Your task to perform on an android device: search for starred emails in the gmail app Image 0: 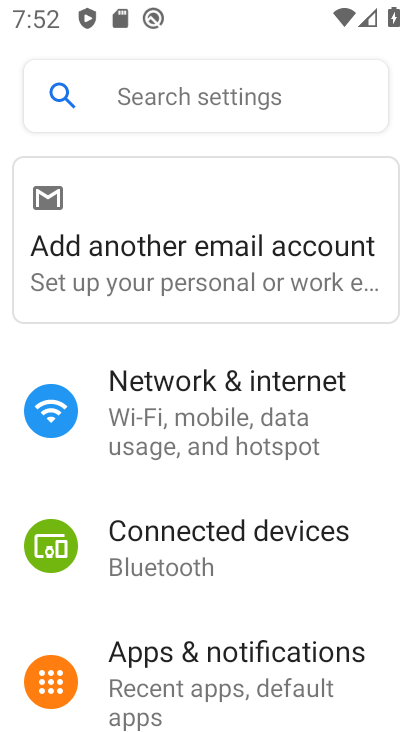
Step 0: press home button
Your task to perform on an android device: search for starred emails in the gmail app Image 1: 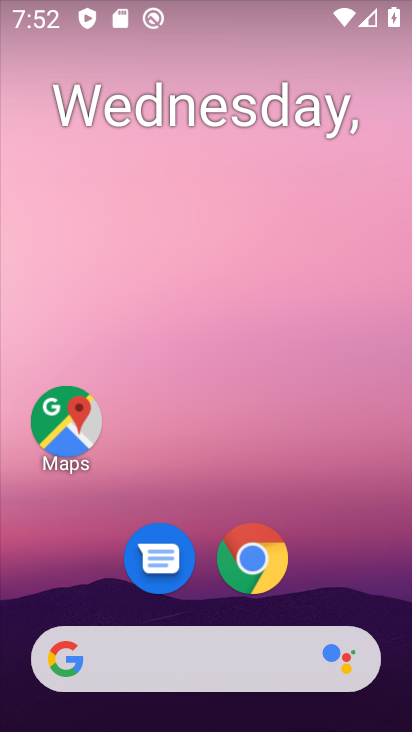
Step 1: drag from (273, 682) to (273, 122)
Your task to perform on an android device: search for starred emails in the gmail app Image 2: 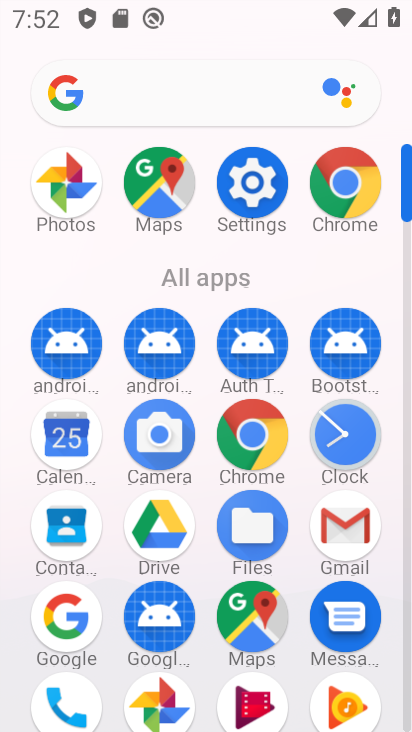
Step 2: click (379, 527)
Your task to perform on an android device: search for starred emails in the gmail app Image 3: 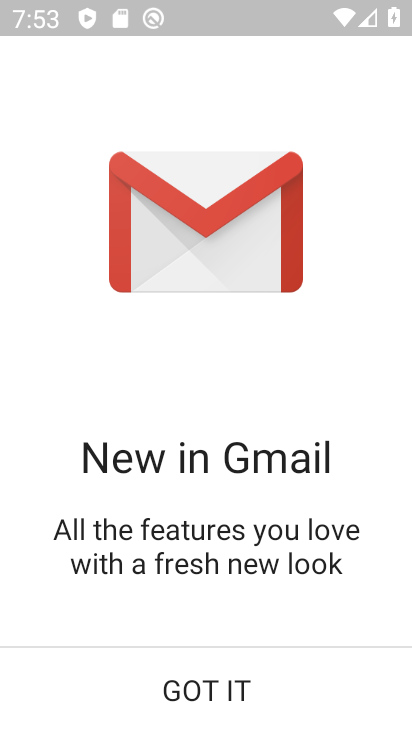
Step 3: click (241, 683)
Your task to perform on an android device: search for starred emails in the gmail app Image 4: 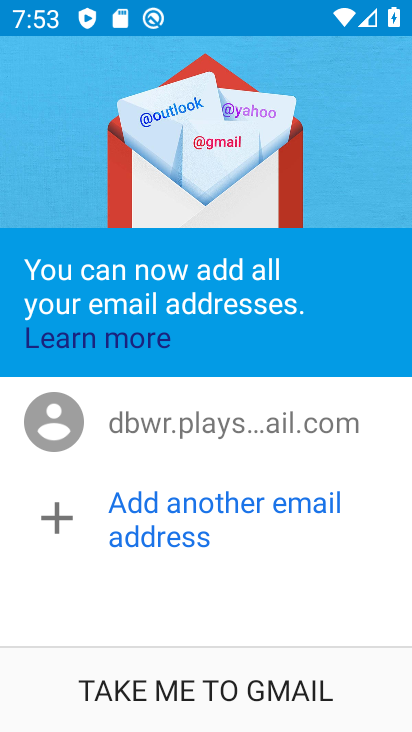
Step 4: click (241, 683)
Your task to perform on an android device: search for starred emails in the gmail app Image 5: 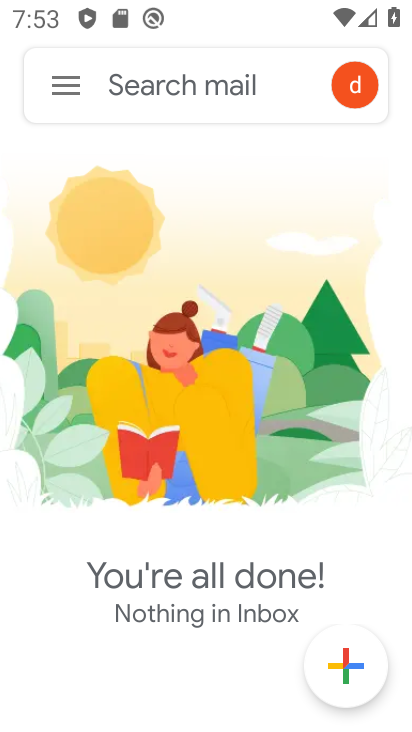
Step 5: click (47, 82)
Your task to perform on an android device: search for starred emails in the gmail app Image 6: 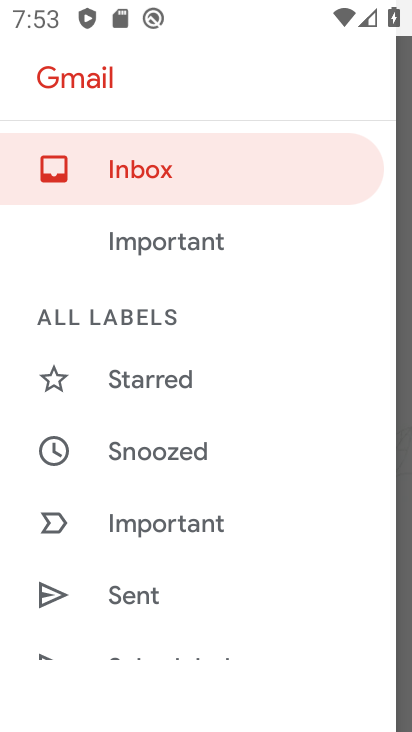
Step 6: click (175, 379)
Your task to perform on an android device: search for starred emails in the gmail app Image 7: 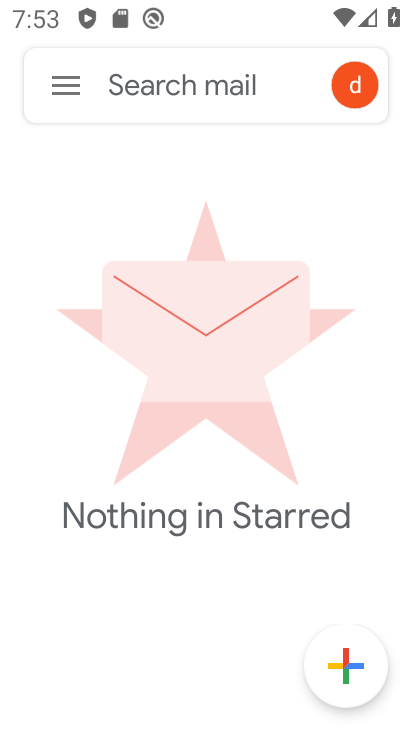
Step 7: task complete